Your task to perform on an android device: turn on the 12-hour format for clock Image 0: 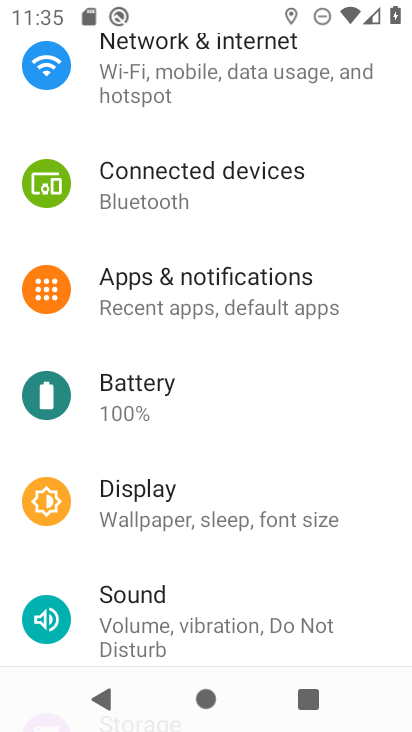
Step 0: press home button
Your task to perform on an android device: turn on the 12-hour format for clock Image 1: 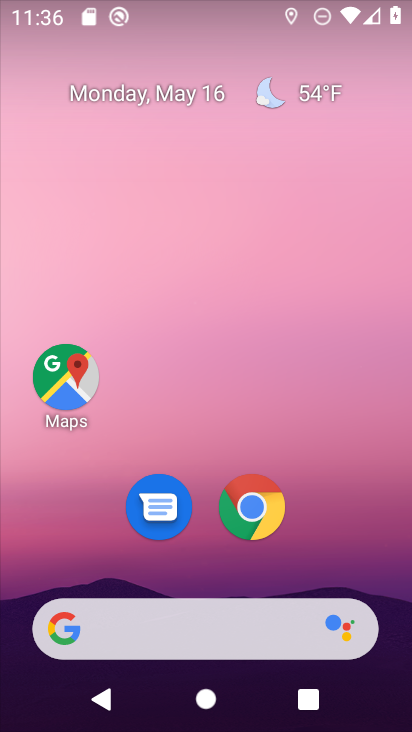
Step 1: drag from (383, 561) to (319, 227)
Your task to perform on an android device: turn on the 12-hour format for clock Image 2: 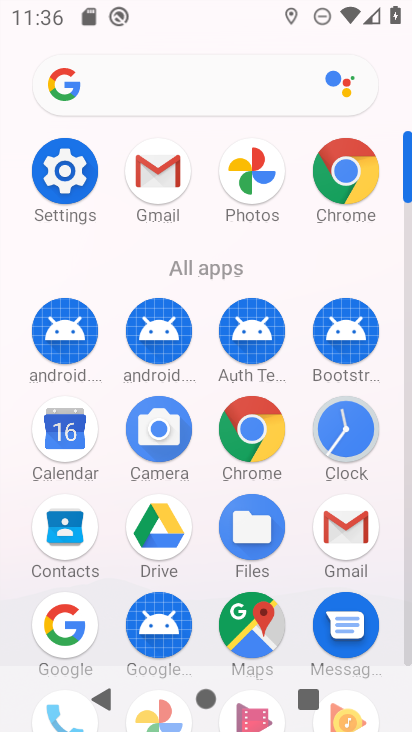
Step 2: click (344, 453)
Your task to perform on an android device: turn on the 12-hour format for clock Image 3: 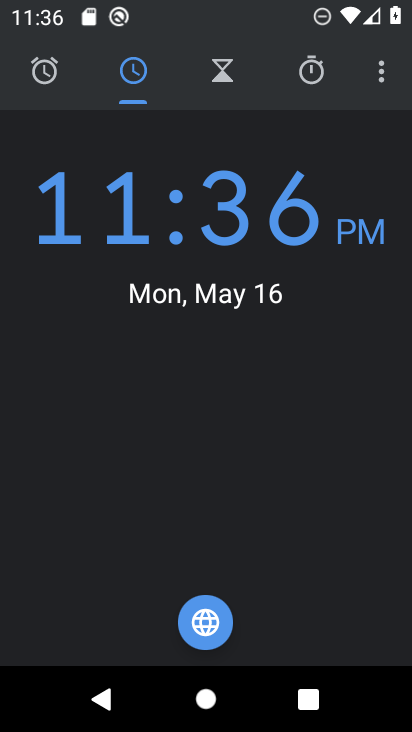
Step 3: click (371, 83)
Your task to perform on an android device: turn on the 12-hour format for clock Image 4: 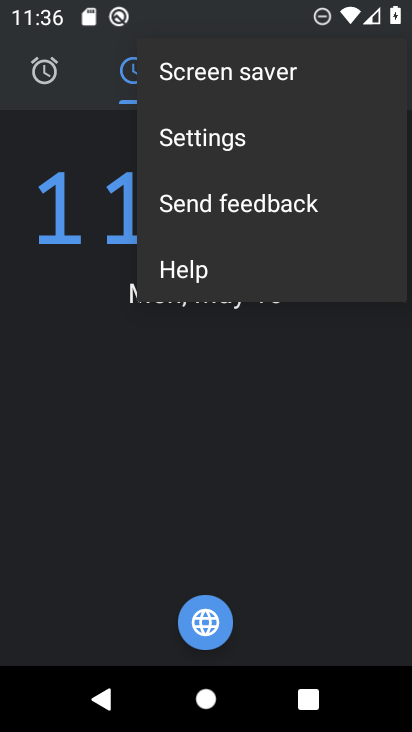
Step 4: click (297, 144)
Your task to perform on an android device: turn on the 12-hour format for clock Image 5: 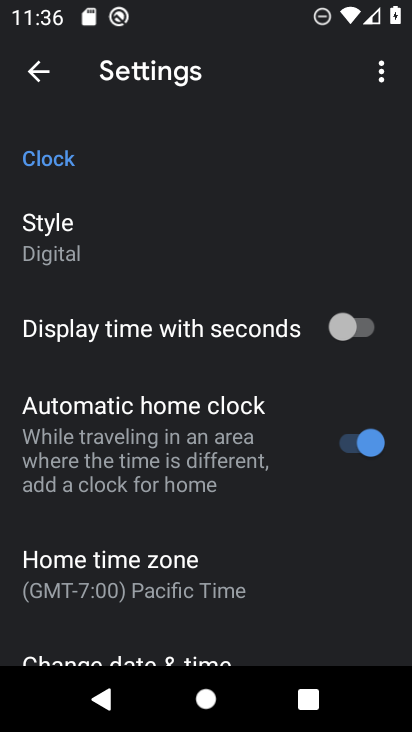
Step 5: drag from (256, 567) to (156, 102)
Your task to perform on an android device: turn on the 12-hour format for clock Image 6: 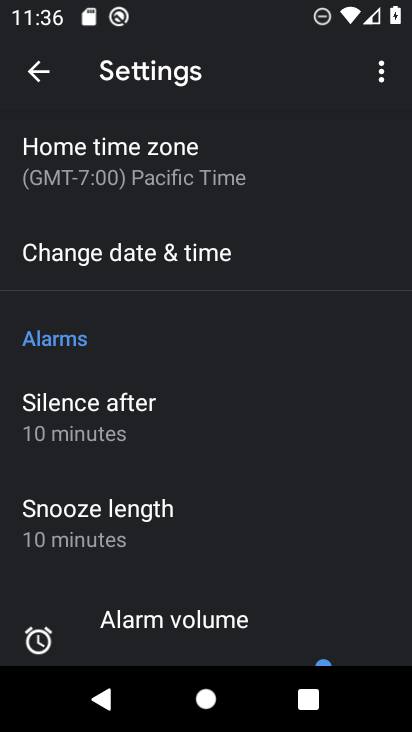
Step 6: click (174, 269)
Your task to perform on an android device: turn on the 12-hour format for clock Image 7: 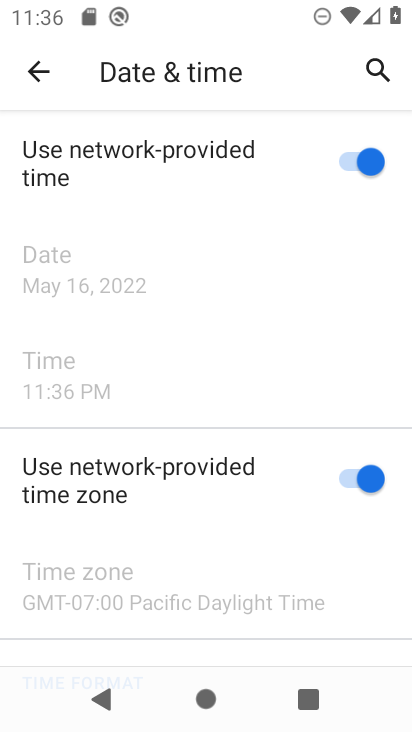
Step 7: task complete